Your task to perform on an android device: empty trash in google photos Image 0: 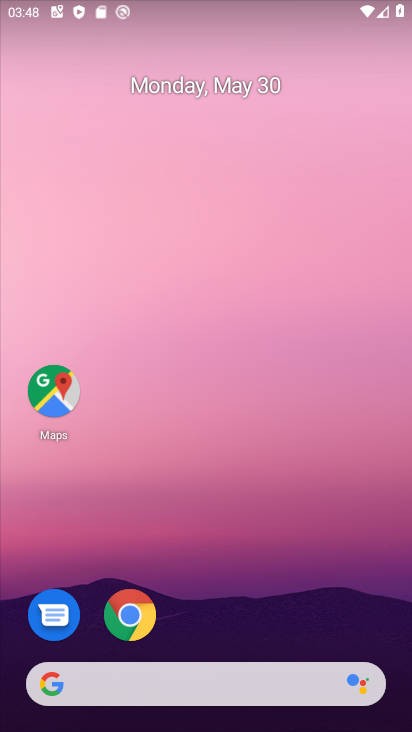
Step 0: drag from (231, 595) to (249, 93)
Your task to perform on an android device: empty trash in google photos Image 1: 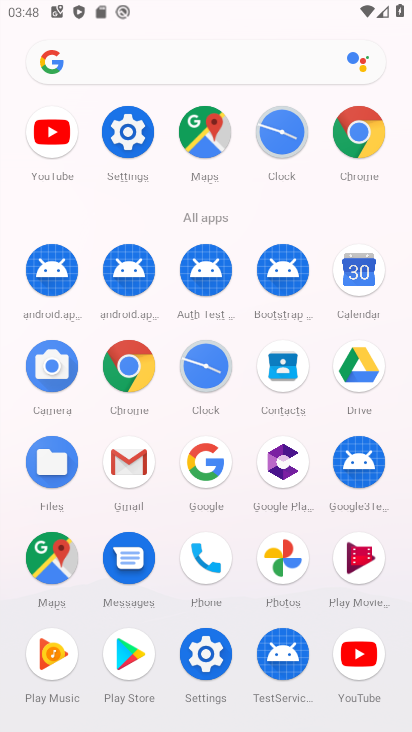
Step 1: click (283, 558)
Your task to perform on an android device: empty trash in google photos Image 2: 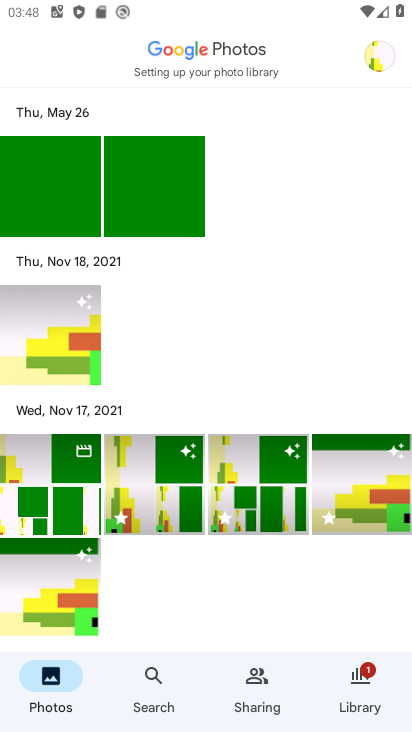
Step 2: click (360, 683)
Your task to perform on an android device: empty trash in google photos Image 3: 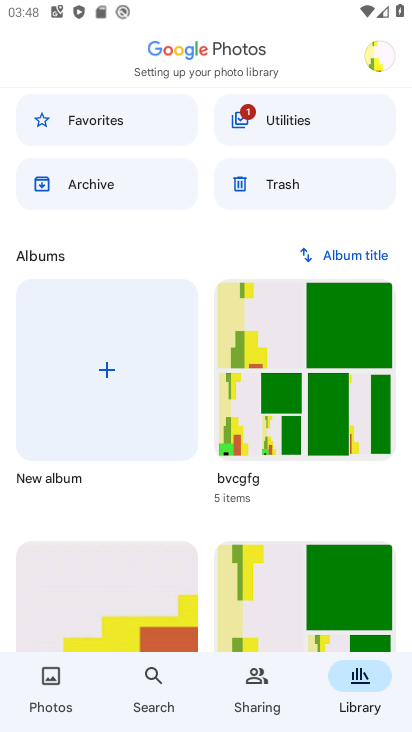
Step 3: click (268, 176)
Your task to perform on an android device: empty trash in google photos Image 4: 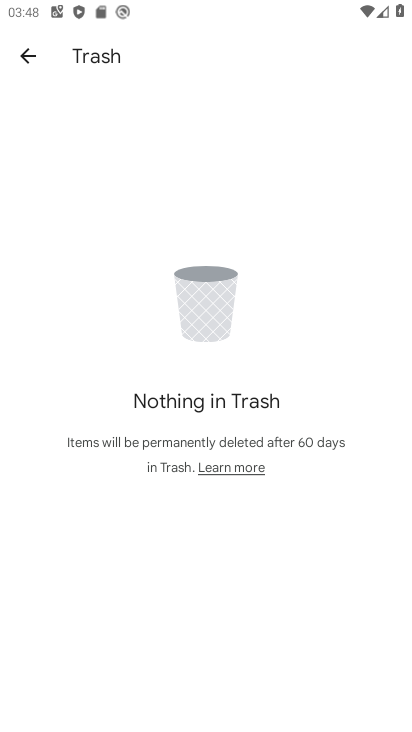
Step 4: task complete